Your task to perform on an android device: Search for the best 100% cotton t-shirts Image 0: 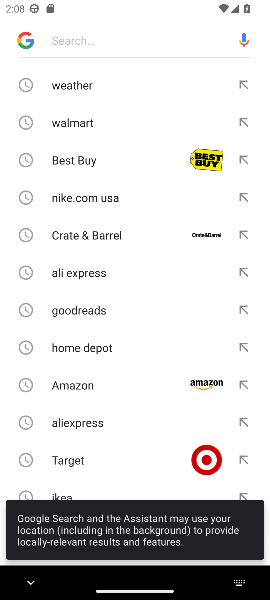
Step 0: press home button
Your task to perform on an android device: Search for the best 100% cotton t-shirts Image 1: 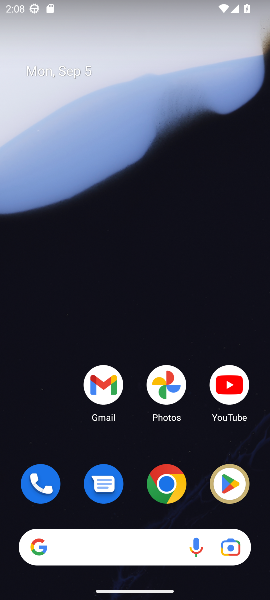
Step 1: click (168, 476)
Your task to perform on an android device: Search for the best 100% cotton t-shirts Image 2: 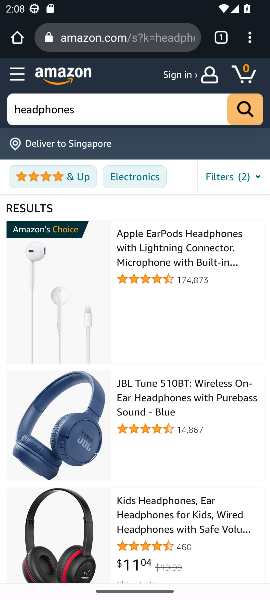
Step 2: click (134, 38)
Your task to perform on an android device: Search for the best 100% cotton t-shirts Image 3: 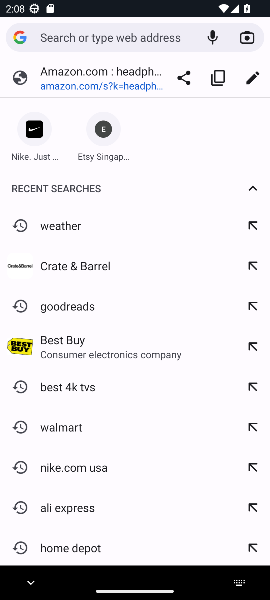
Step 3: type " best 100% cotton t-shirts"
Your task to perform on an android device: Search for the best 100% cotton t-shirts Image 4: 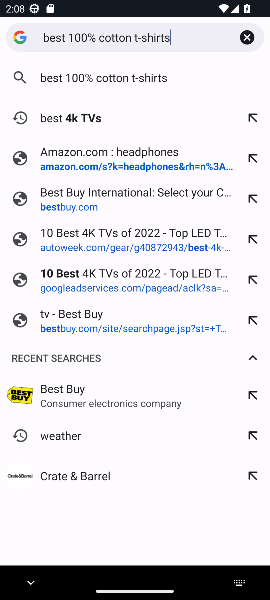
Step 4: press enter
Your task to perform on an android device: Search for the best 100% cotton t-shirts Image 5: 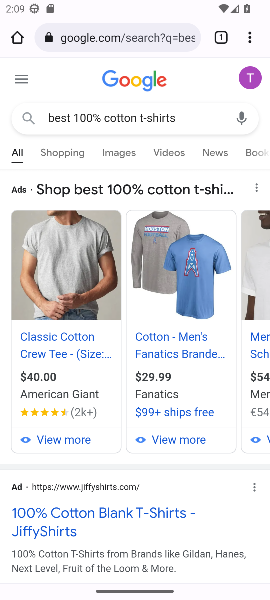
Step 5: task complete